Your task to perform on an android device: Go to ESPN.com Image 0: 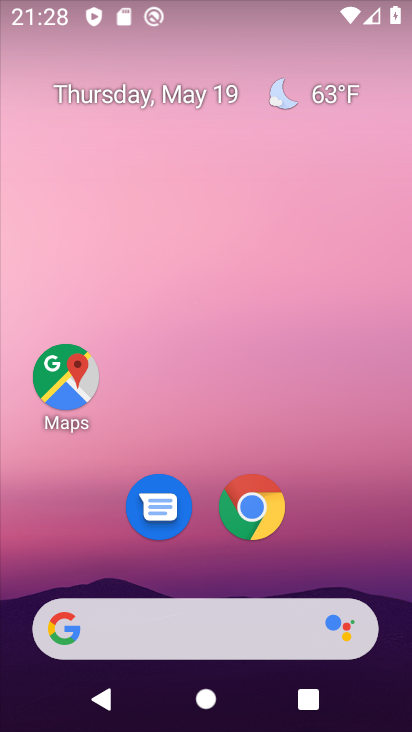
Step 0: click (269, 517)
Your task to perform on an android device: Go to ESPN.com Image 1: 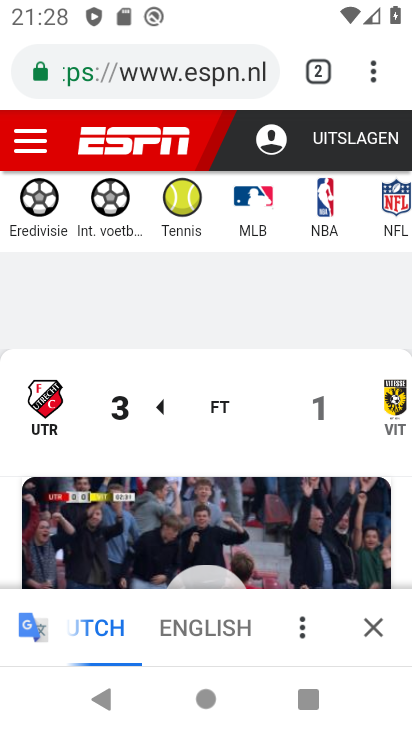
Step 1: task complete